Your task to perform on an android device: toggle notifications settings in the gmail app Image 0: 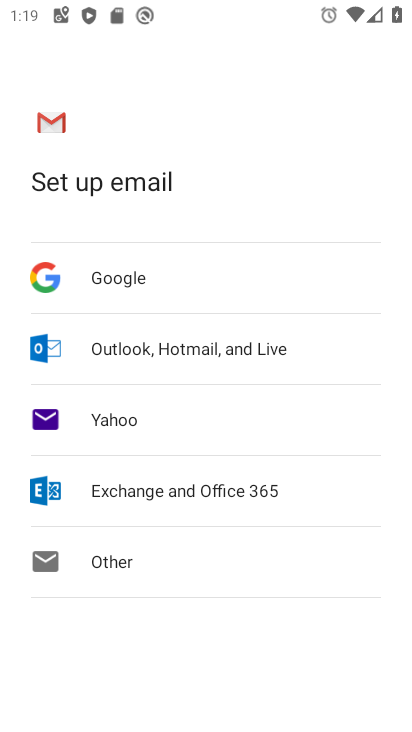
Step 0: press home button
Your task to perform on an android device: toggle notifications settings in the gmail app Image 1: 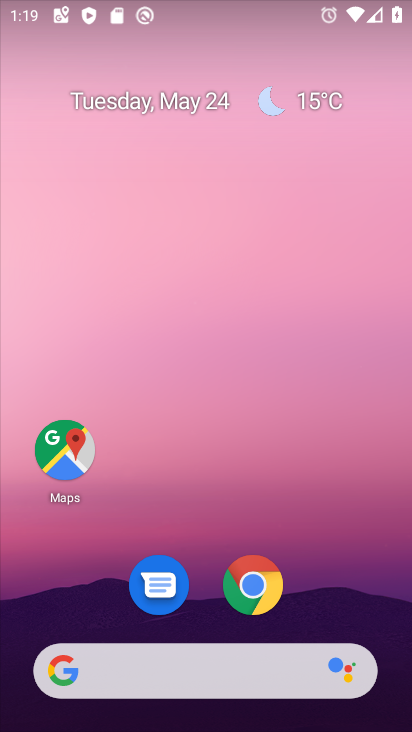
Step 1: drag from (272, 507) to (327, 4)
Your task to perform on an android device: toggle notifications settings in the gmail app Image 2: 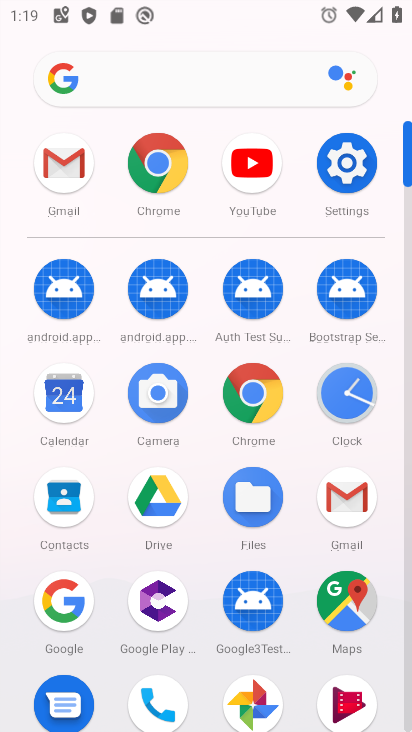
Step 2: click (70, 165)
Your task to perform on an android device: toggle notifications settings in the gmail app Image 3: 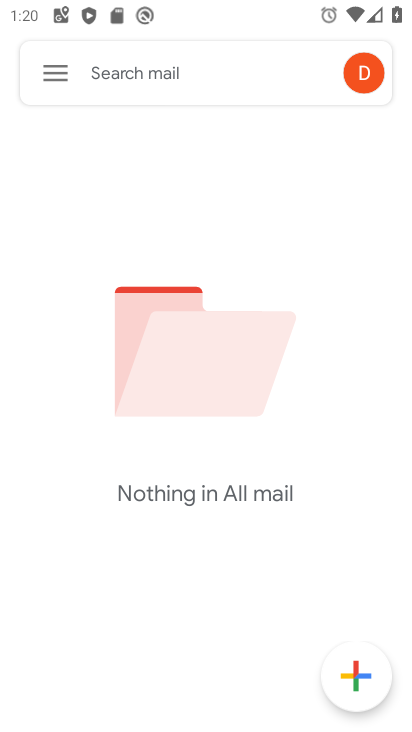
Step 3: click (61, 61)
Your task to perform on an android device: toggle notifications settings in the gmail app Image 4: 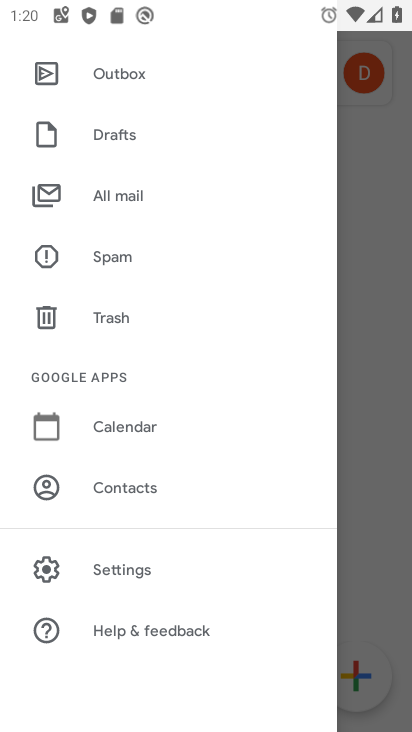
Step 4: click (139, 561)
Your task to perform on an android device: toggle notifications settings in the gmail app Image 5: 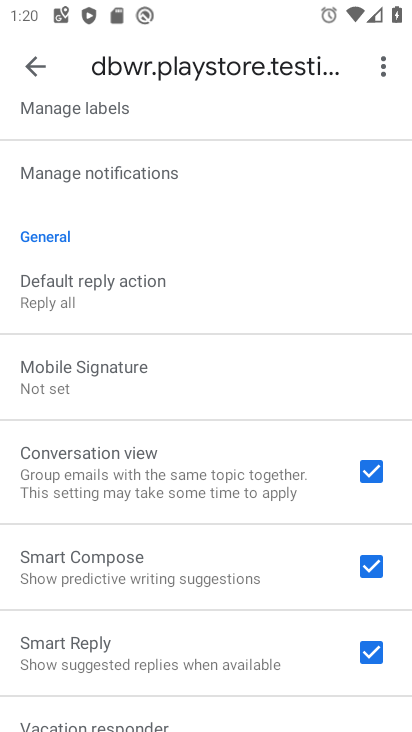
Step 5: click (233, 172)
Your task to perform on an android device: toggle notifications settings in the gmail app Image 6: 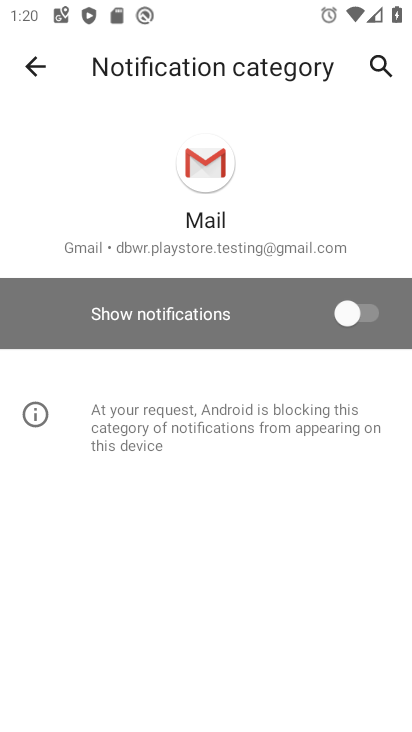
Step 6: click (360, 303)
Your task to perform on an android device: toggle notifications settings in the gmail app Image 7: 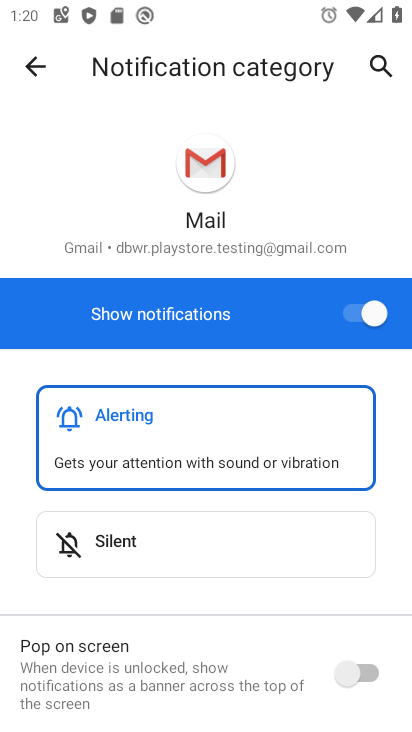
Step 7: task complete